Your task to perform on an android device: Turn on the flashlight Image 0: 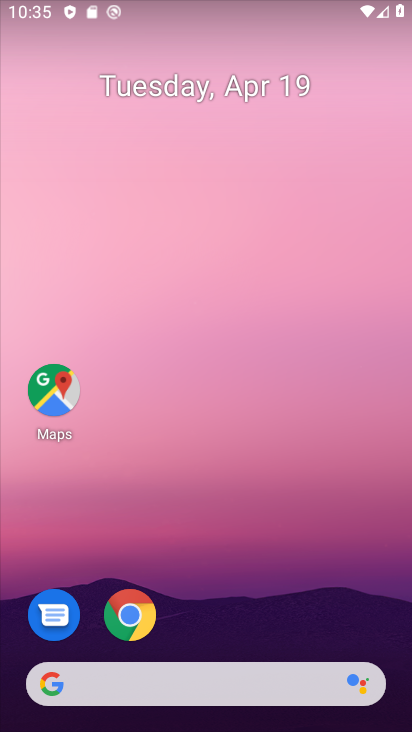
Step 0: drag from (59, 6) to (171, 618)
Your task to perform on an android device: Turn on the flashlight Image 1: 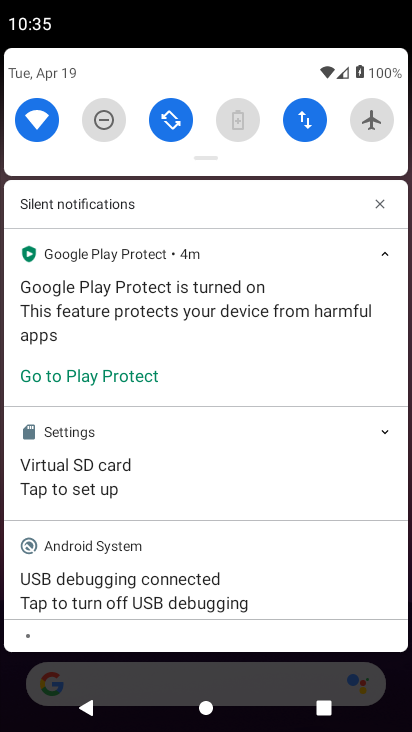
Step 1: drag from (127, 75) to (197, 686)
Your task to perform on an android device: Turn on the flashlight Image 2: 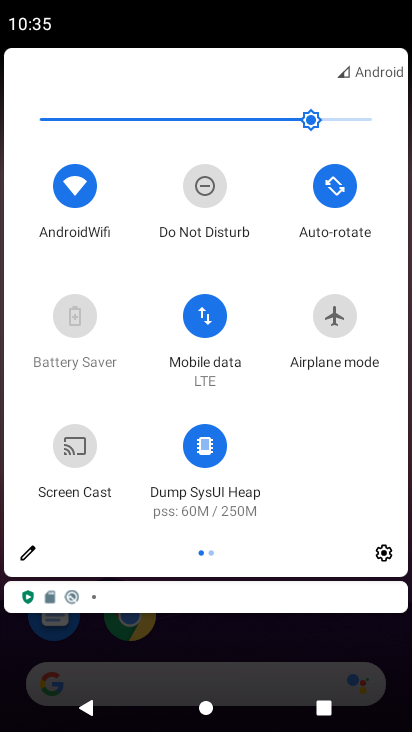
Step 2: click (21, 554)
Your task to perform on an android device: Turn on the flashlight Image 3: 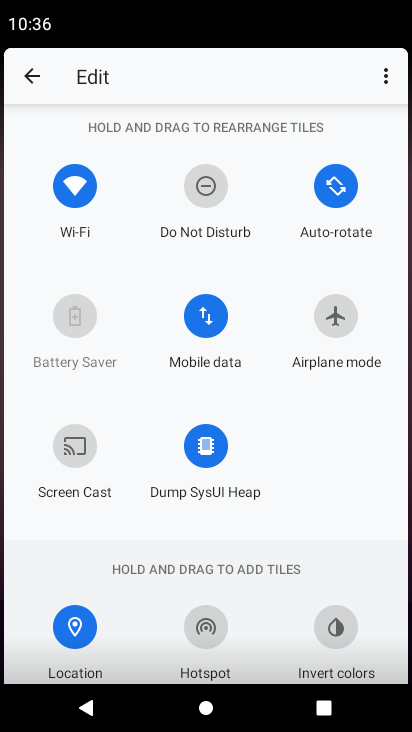
Step 3: task complete